Your task to perform on an android device: Go to Android settings Image 0: 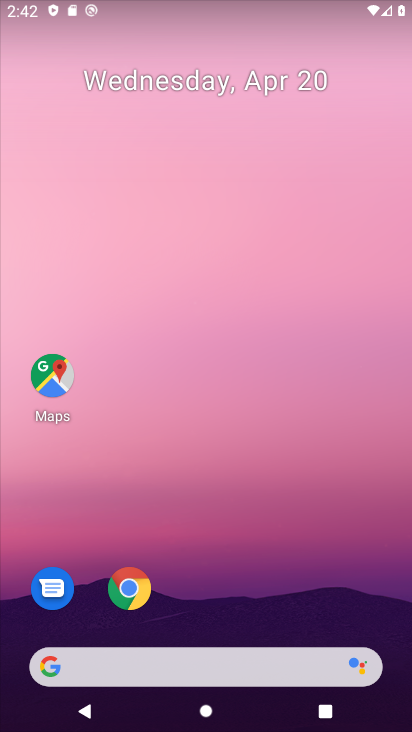
Step 0: drag from (225, 594) to (234, 124)
Your task to perform on an android device: Go to Android settings Image 1: 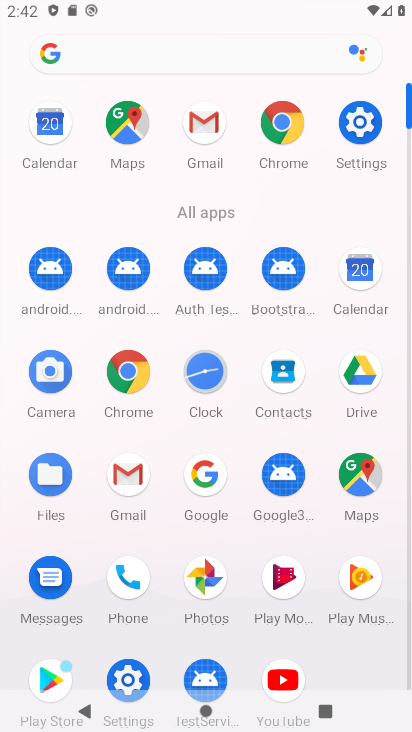
Step 1: click (367, 119)
Your task to perform on an android device: Go to Android settings Image 2: 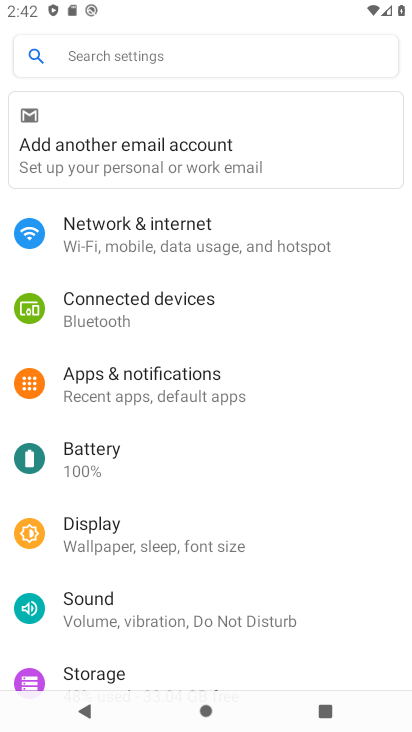
Step 2: drag from (205, 648) to (175, 131)
Your task to perform on an android device: Go to Android settings Image 3: 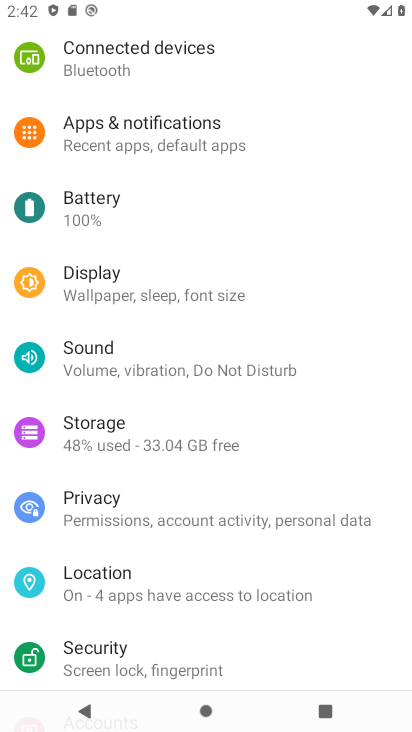
Step 3: drag from (174, 642) to (193, 170)
Your task to perform on an android device: Go to Android settings Image 4: 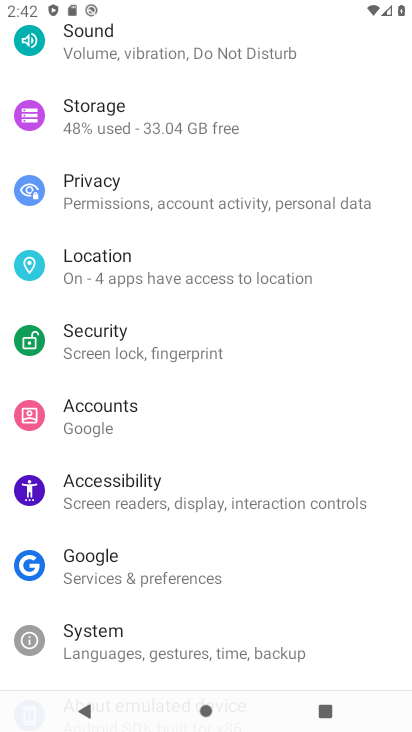
Step 4: drag from (141, 618) to (151, 198)
Your task to perform on an android device: Go to Android settings Image 5: 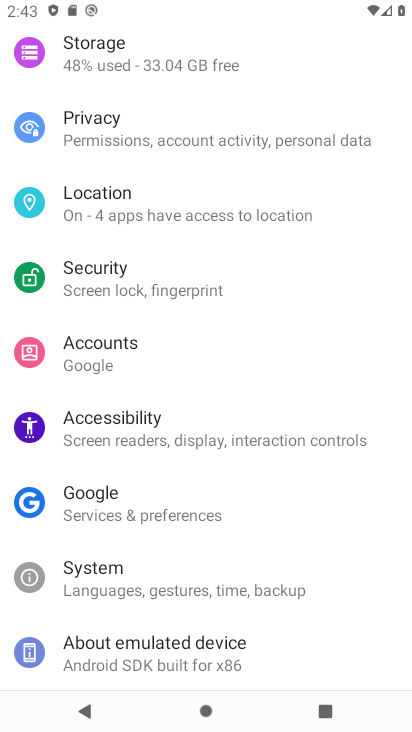
Step 5: click (141, 643)
Your task to perform on an android device: Go to Android settings Image 6: 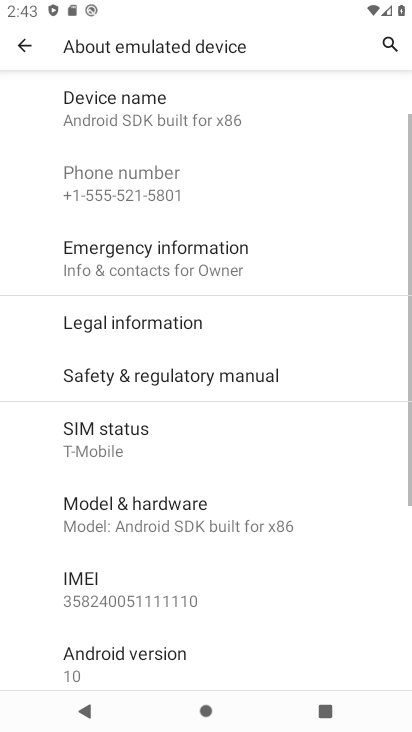
Step 6: drag from (199, 559) to (199, 117)
Your task to perform on an android device: Go to Android settings Image 7: 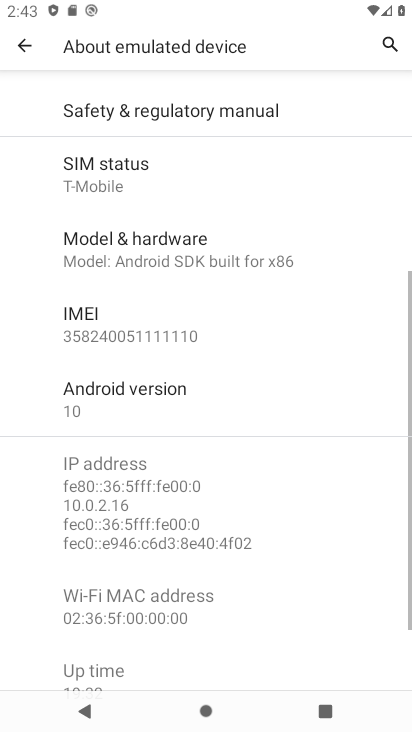
Step 7: click (159, 389)
Your task to perform on an android device: Go to Android settings Image 8: 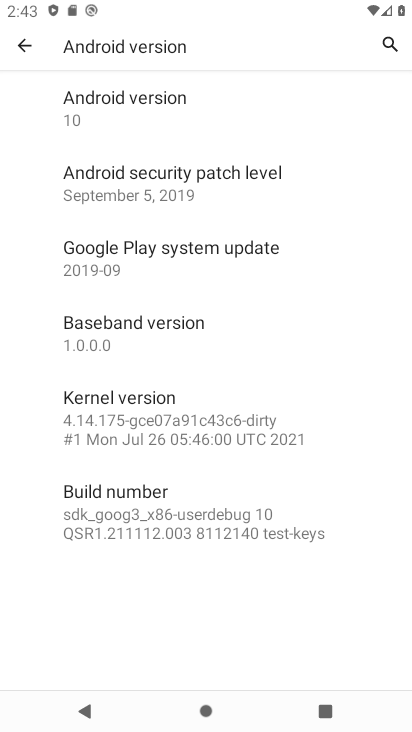
Step 8: click (31, 40)
Your task to perform on an android device: Go to Android settings Image 9: 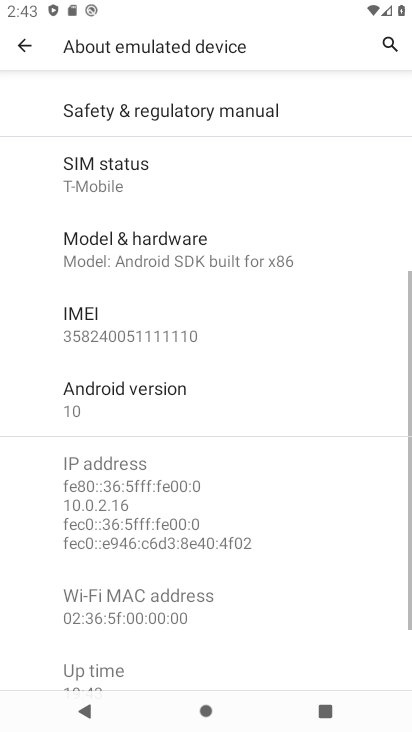
Step 9: click (25, 46)
Your task to perform on an android device: Go to Android settings Image 10: 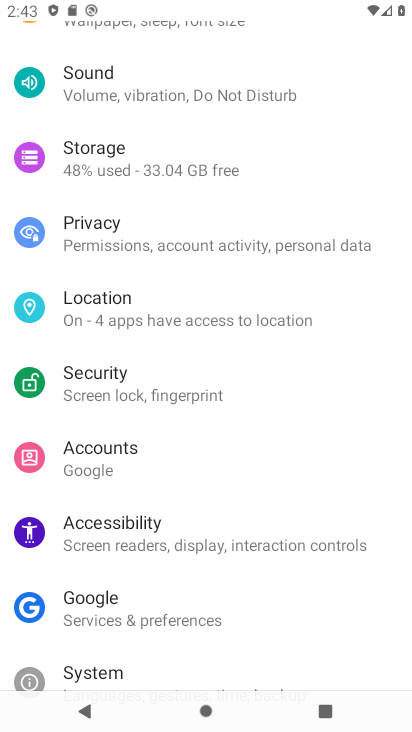
Step 10: task complete